Your task to perform on an android device: Open eBay Image 0: 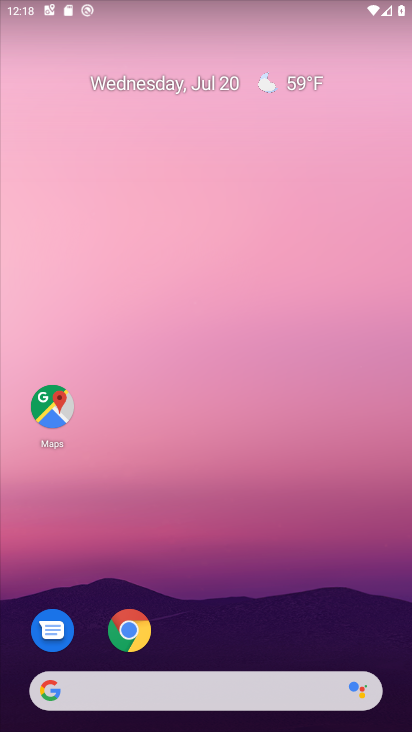
Step 0: click (128, 629)
Your task to perform on an android device: Open eBay Image 1: 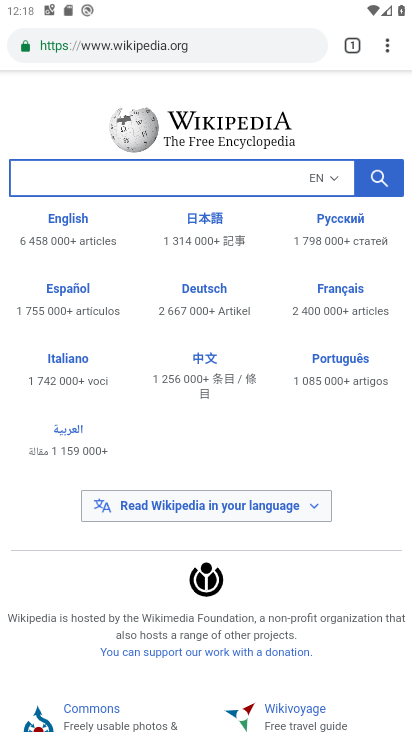
Step 1: click (239, 37)
Your task to perform on an android device: Open eBay Image 2: 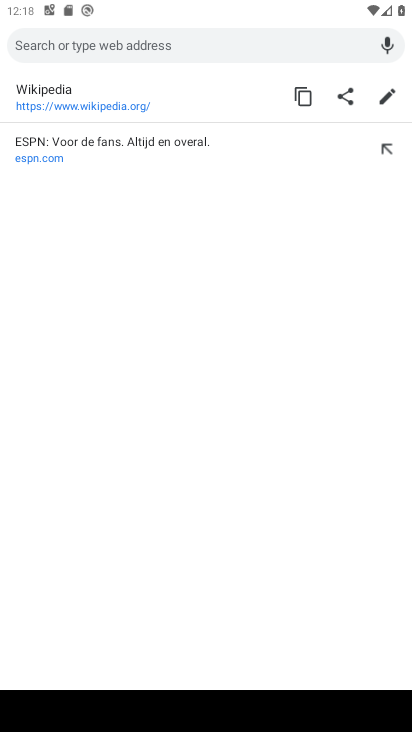
Step 2: type "ebay"
Your task to perform on an android device: Open eBay Image 3: 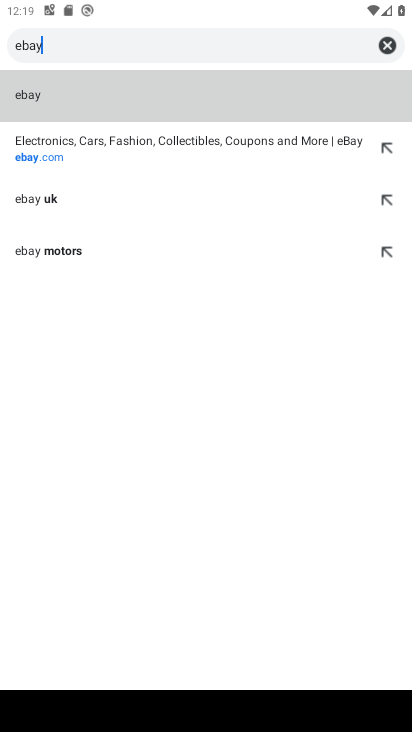
Step 3: click (42, 109)
Your task to perform on an android device: Open eBay Image 4: 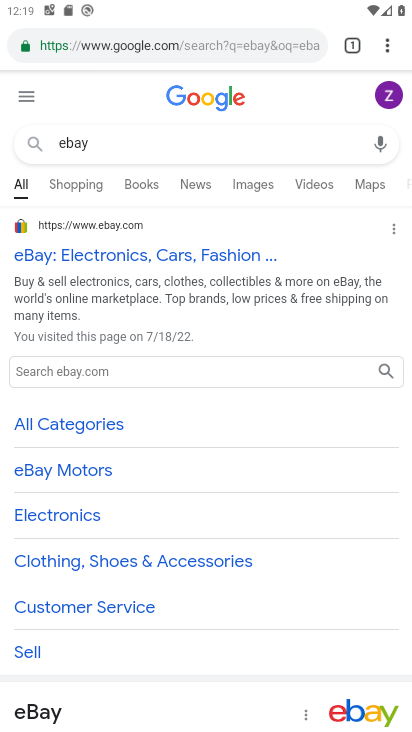
Step 4: click (75, 227)
Your task to perform on an android device: Open eBay Image 5: 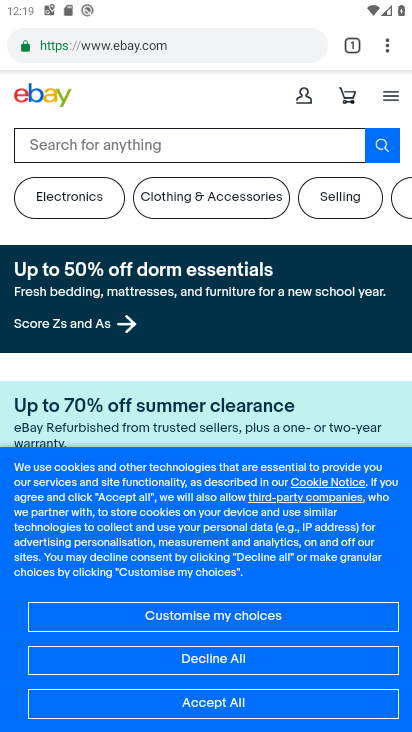
Step 5: drag from (222, 376) to (234, 46)
Your task to perform on an android device: Open eBay Image 6: 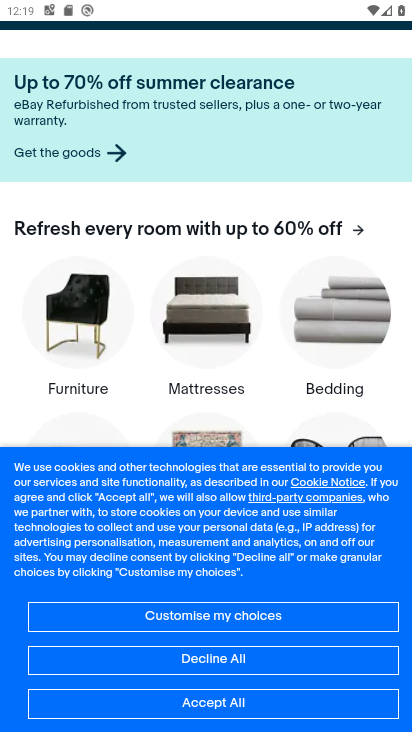
Step 6: click (208, 705)
Your task to perform on an android device: Open eBay Image 7: 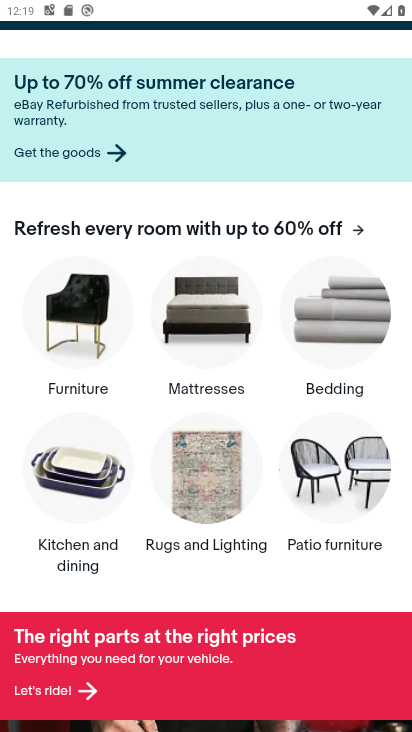
Step 7: task complete